Your task to perform on an android device: Show the shopping cart on newegg. Add "alienware aurora" to the cart on newegg Image 0: 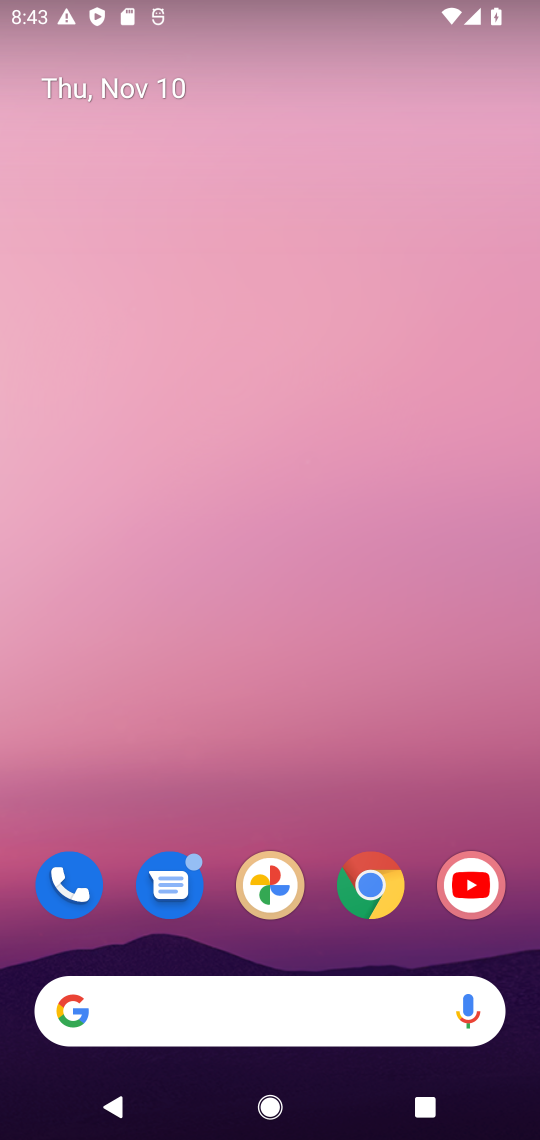
Step 0: click (355, 885)
Your task to perform on an android device: Show the shopping cart on newegg. Add "alienware aurora" to the cart on newegg Image 1: 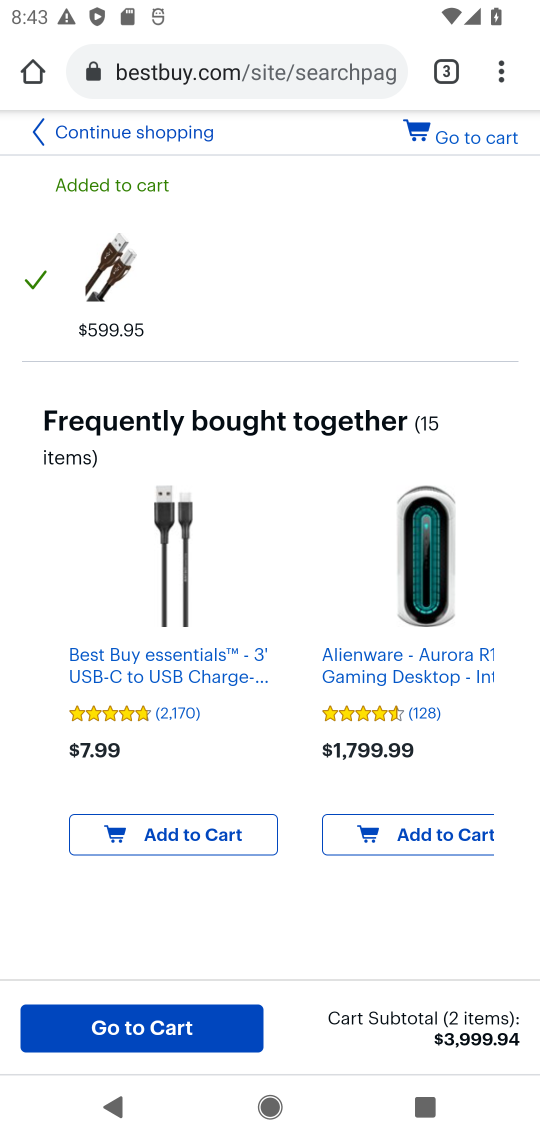
Step 1: click (444, 67)
Your task to perform on an android device: Show the shopping cart on newegg. Add "alienware aurora" to the cart on newegg Image 2: 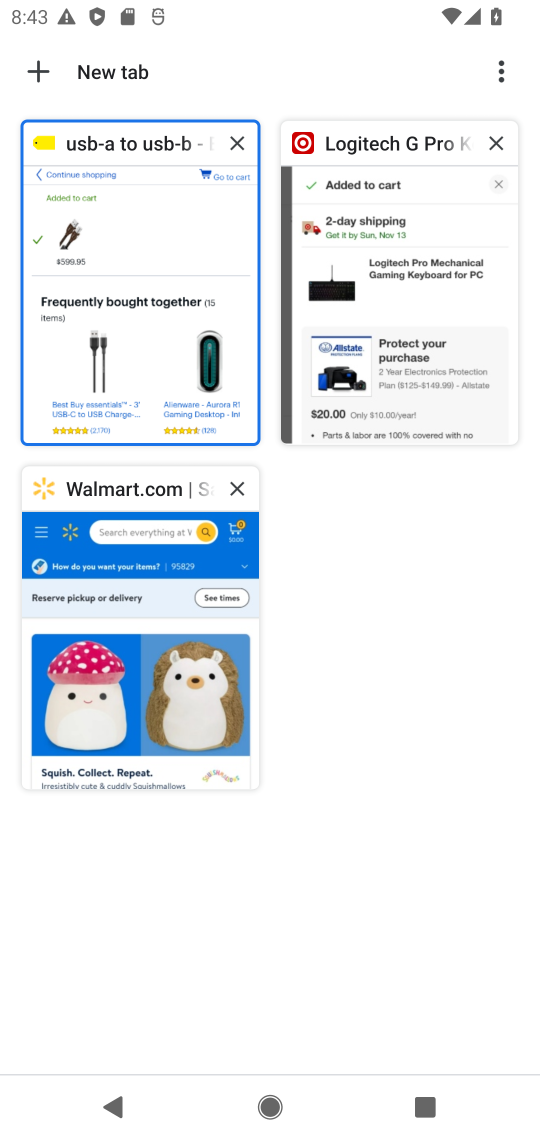
Step 2: click (33, 83)
Your task to perform on an android device: Show the shopping cart on newegg. Add "alienware aurora" to the cart on newegg Image 3: 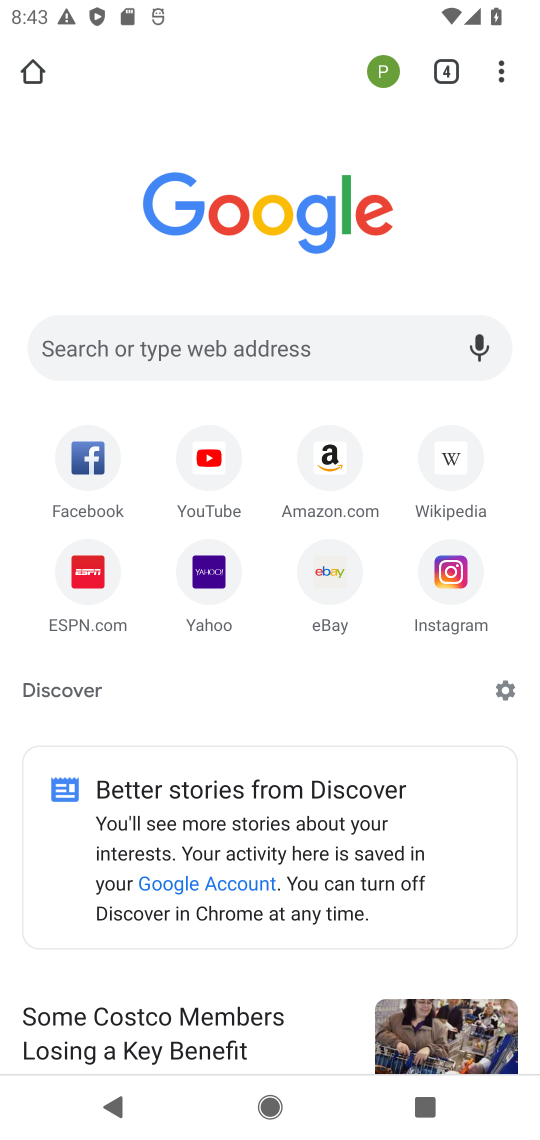
Step 3: click (214, 350)
Your task to perform on an android device: Show the shopping cart on newegg. Add "alienware aurora" to the cart on newegg Image 4: 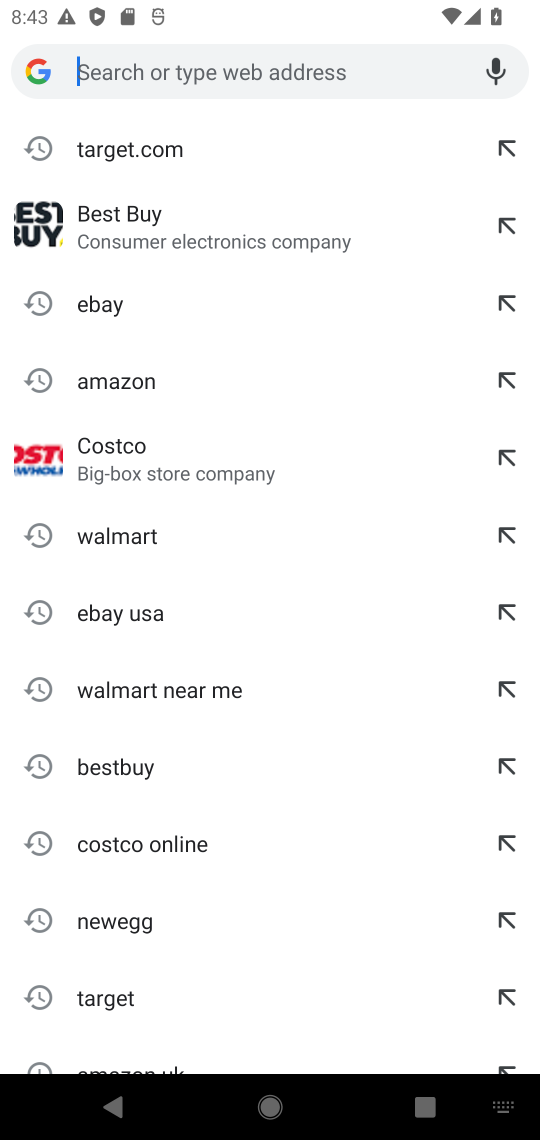
Step 4: click (101, 926)
Your task to perform on an android device: Show the shopping cart on newegg. Add "alienware aurora" to the cart on newegg Image 5: 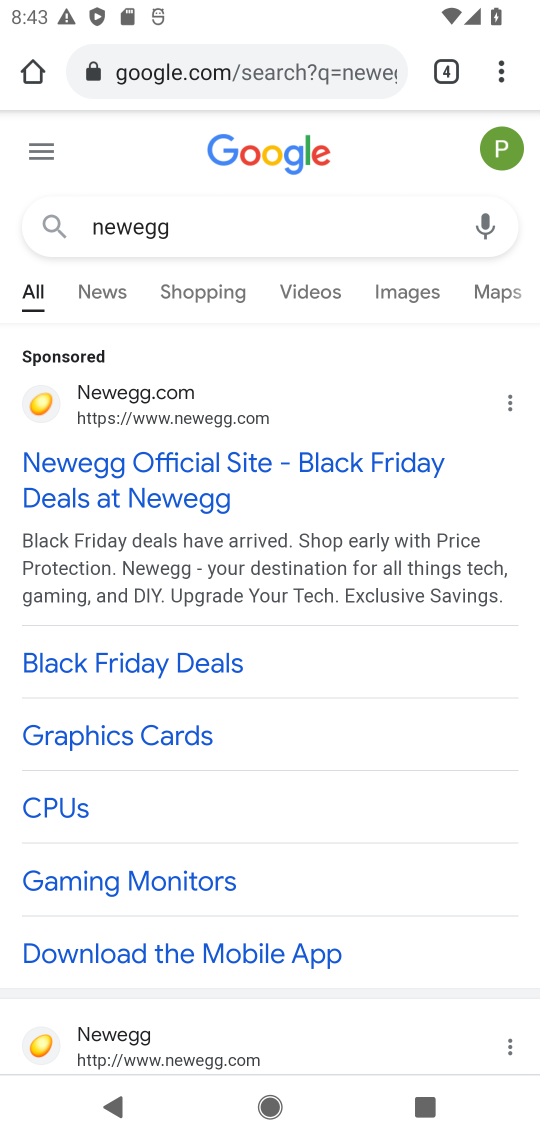
Step 5: drag from (354, 926) to (364, 582)
Your task to perform on an android device: Show the shopping cart on newegg. Add "alienware aurora" to the cart on newegg Image 6: 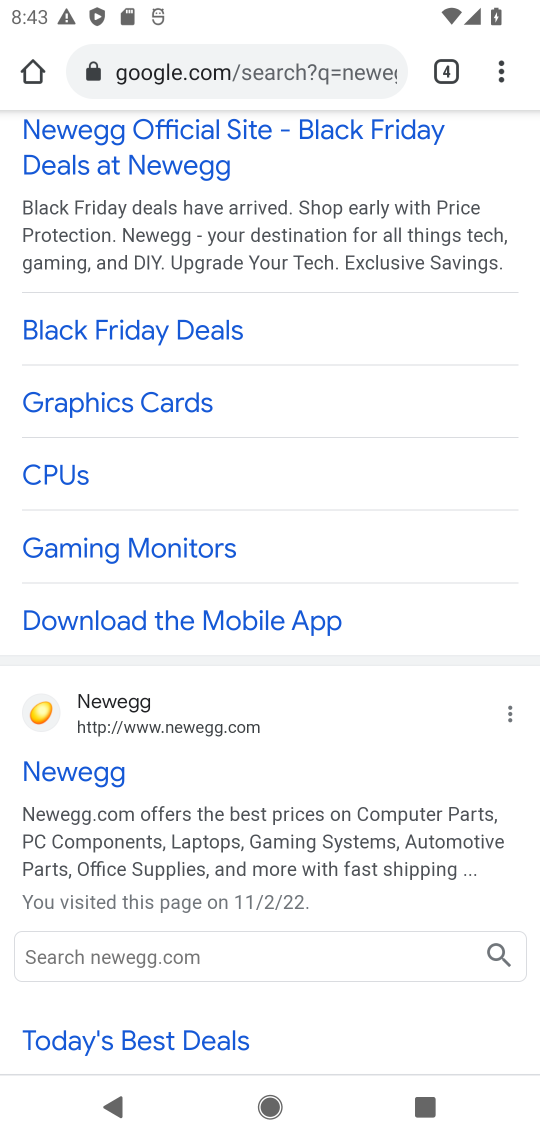
Step 6: click (146, 946)
Your task to perform on an android device: Show the shopping cart on newegg. Add "alienware aurora" to the cart on newegg Image 7: 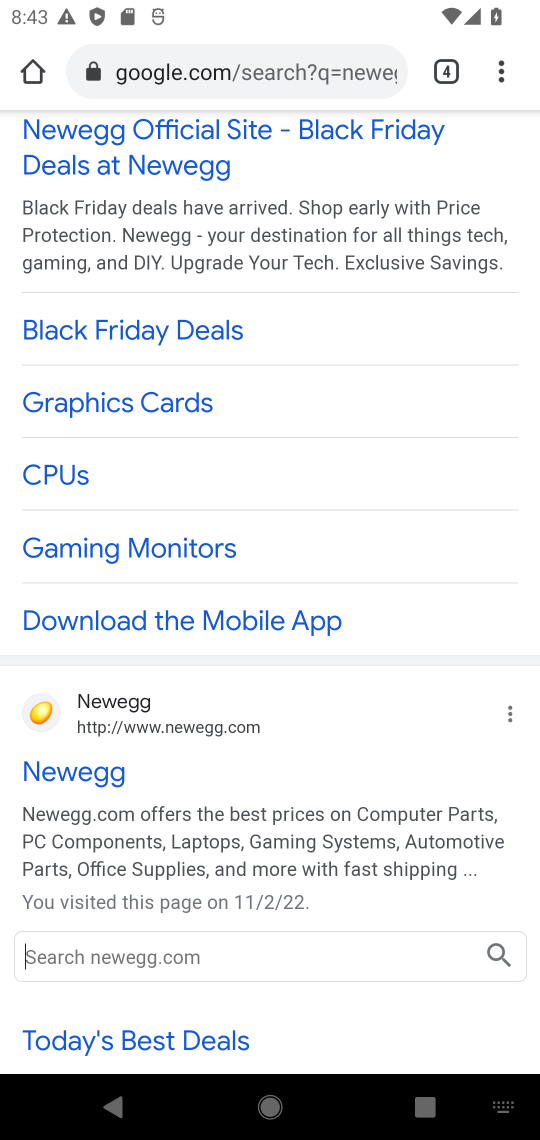
Step 7: type "alienware aurora"
Your task to perform on an android device: Show the shopping cart on newegg. Add "alienware aurora" to the cart on newegg Image 8: 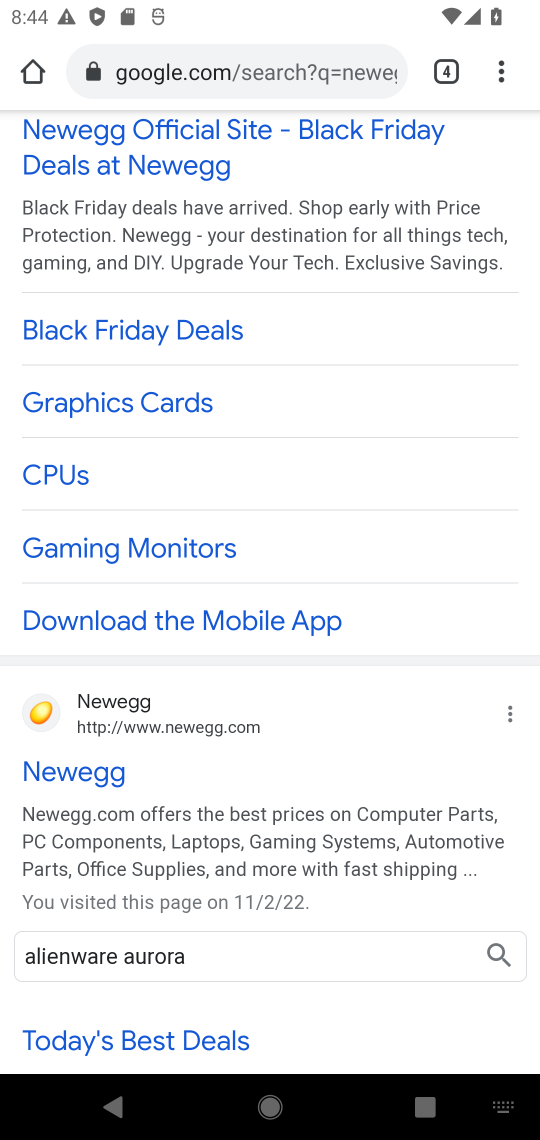
Step 8: click (504, 950)
Your task to perform on an android device: Show the shopping cart on newegg. Add "alienware aurora" to the cart on newegg Image 9: 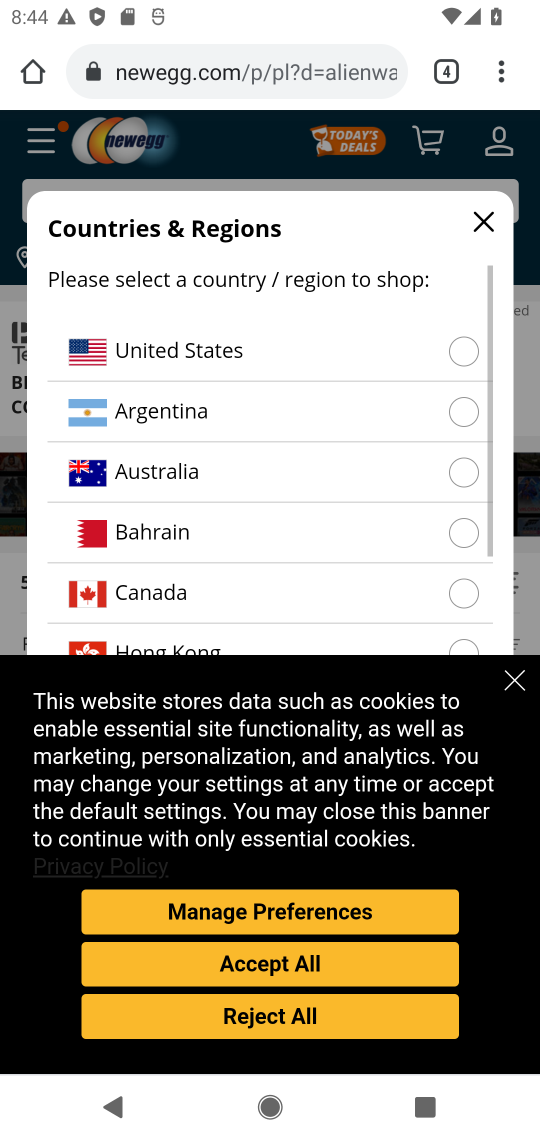
Step 9: click (312, 1018)
Your task to perform on an android device: Show the shopping cart on newegg. Add "alienware aurora" to the cart on newegg Image 10: 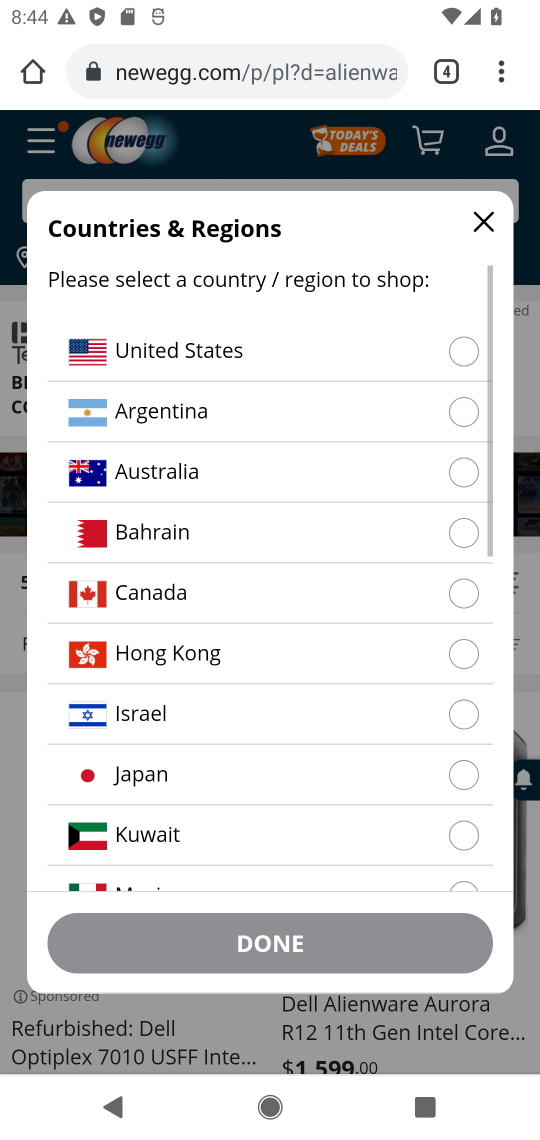
Step 10: click (470, 344)
Your task to perform on an android device: Show the shopping cart on newegg. Add "alienware aurora" to the cart on newegg Image 11: 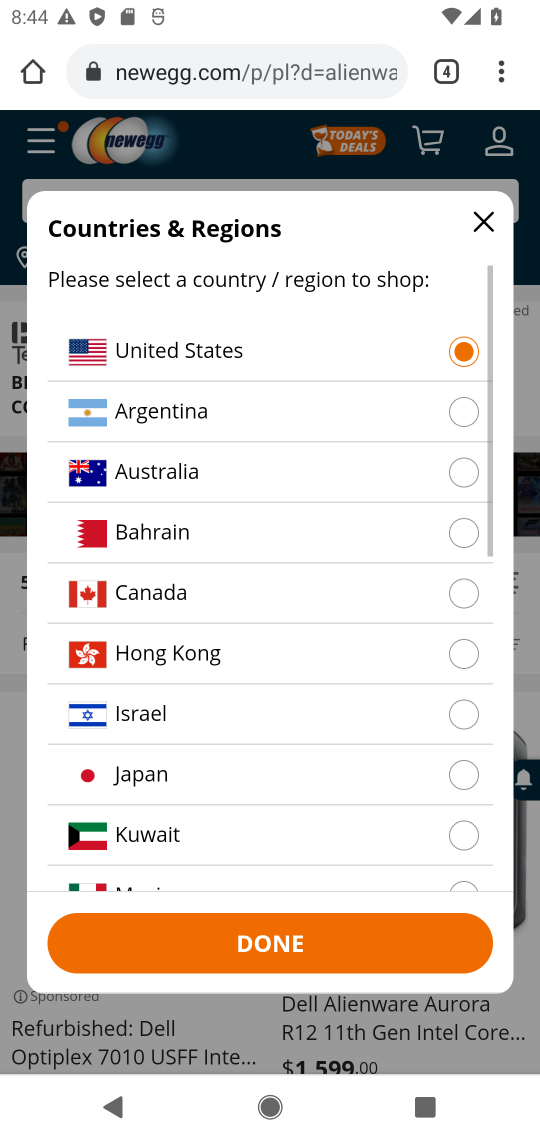
Step 11: click (291, 944)
Your task to perform on an android device: Show the shopping cart on newegg. Add "alienware aurora" to the cart on newegg Image 12: 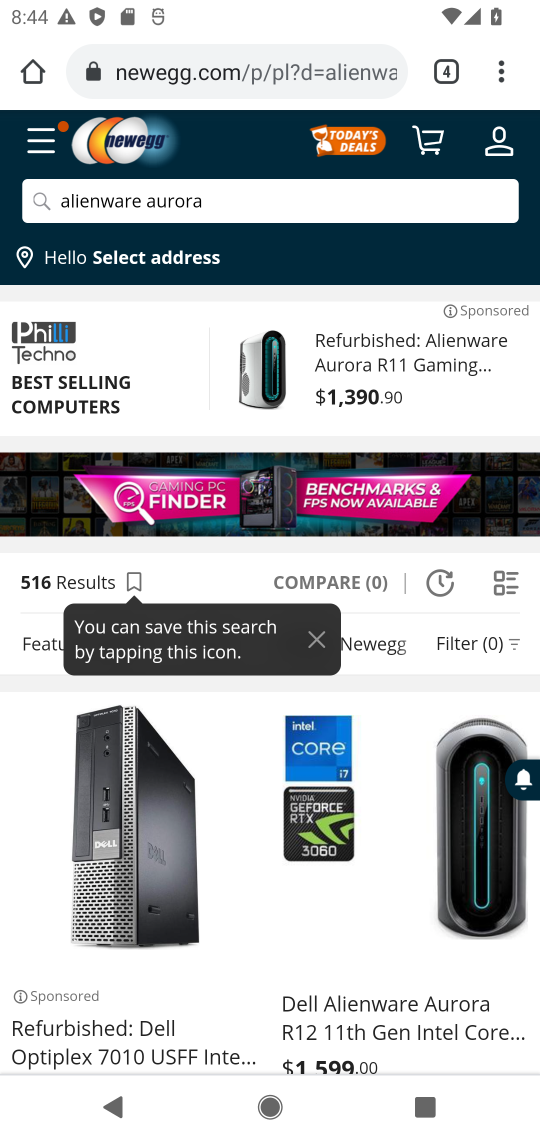
Step 12: click (394, 1020)
Your task to perform on an android device: Show the shopping cart on newegg. Add "alienware aurora" to the cart on newegg Image 13: 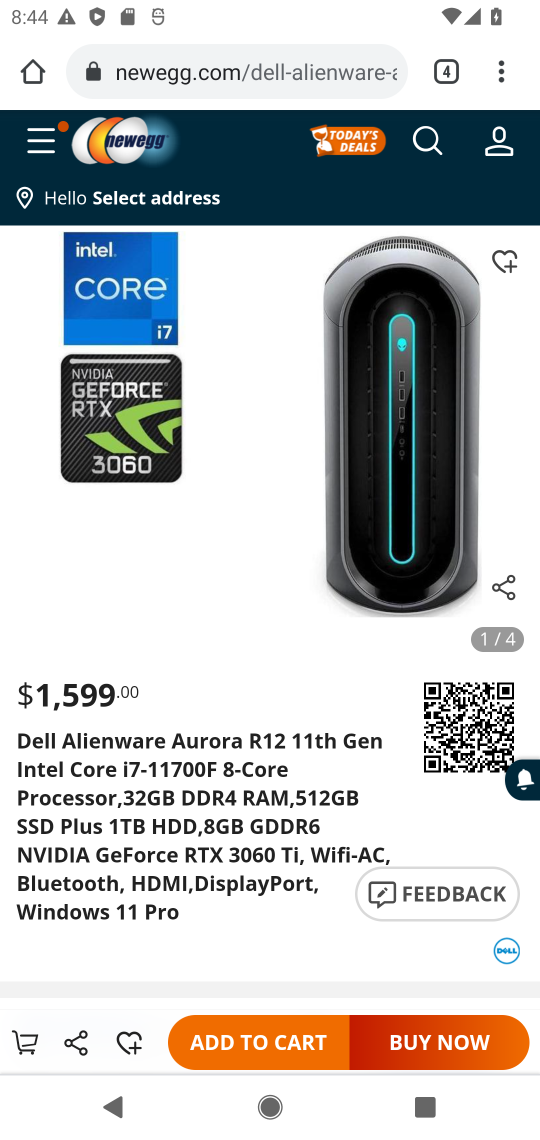
Step 13: click (281, 1044)
Your task to perform on an android device: Show the shopping cart on newegg. Add "alienware aurora" to the cart on newegg Image 14: 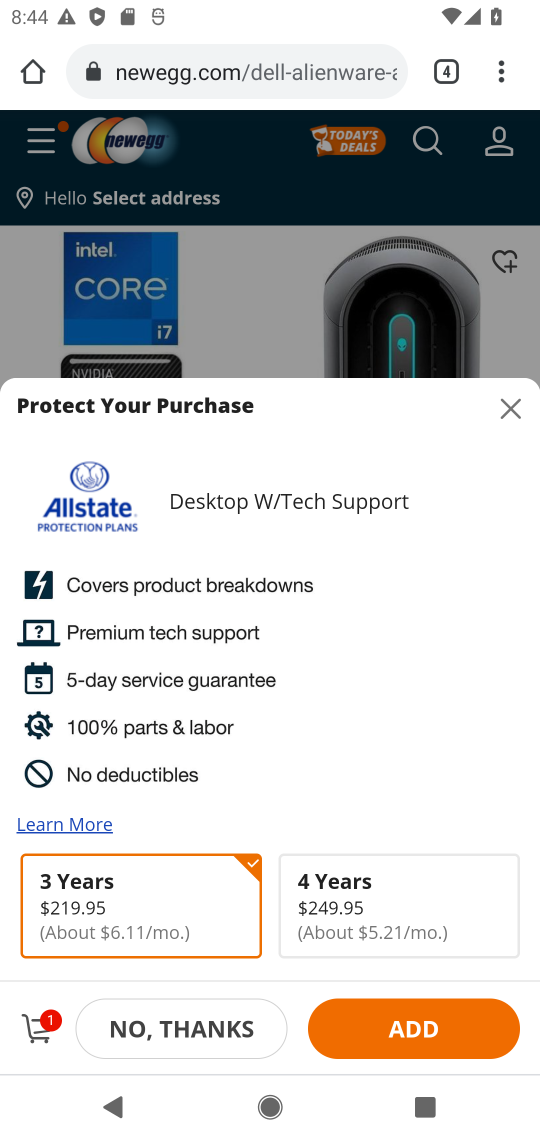
Step 14: task complete